Your task to perform on an android device: Open Android settings Image 0: 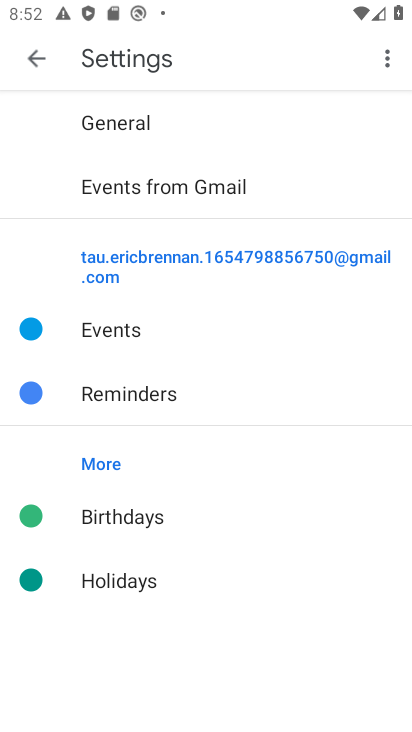
Step 0: press home button
Your task to perform on an android device: Open Android settings Image 1: 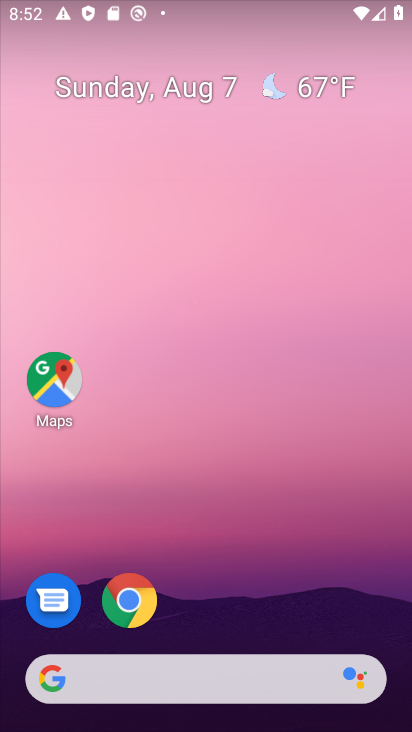
Step 1: drag from (197, 603) to (197, 116)
Your task to perform on an android device: Open Android settings Image 2: 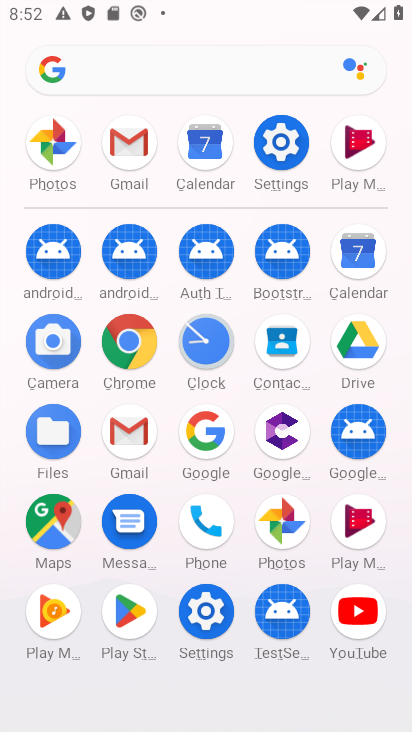
Step 2: click (202, 617)
Your task to perform on an android device: Open Android settings Image 3: 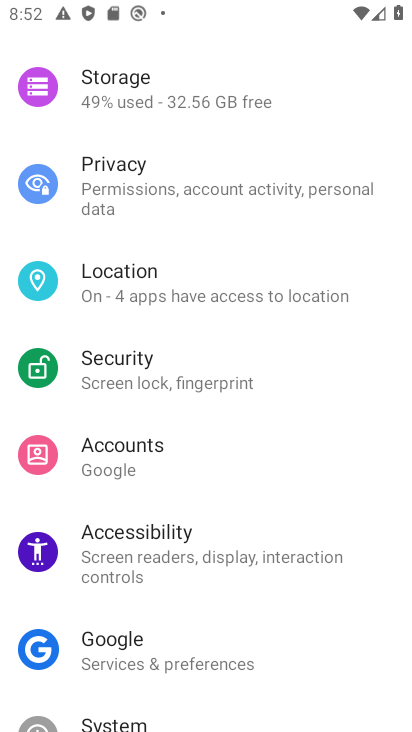
Step 3: drag from (213, 354) to (240, 62)
Your task to perform on an android device: Open Android settings Image 4: 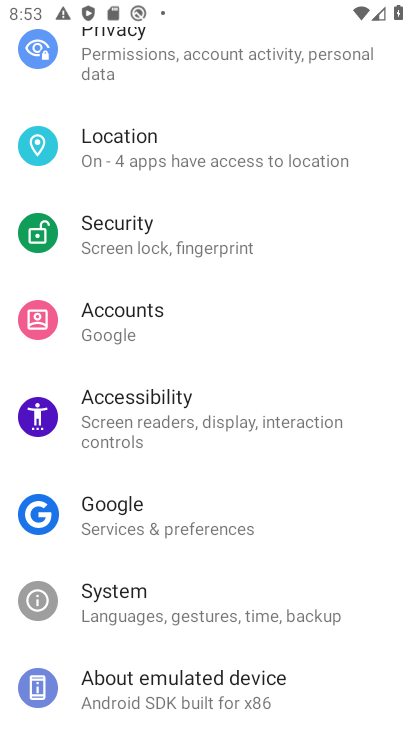
Step 4: click (167, 670)
Your task to perform on an android device: Open Android settings Image 5: 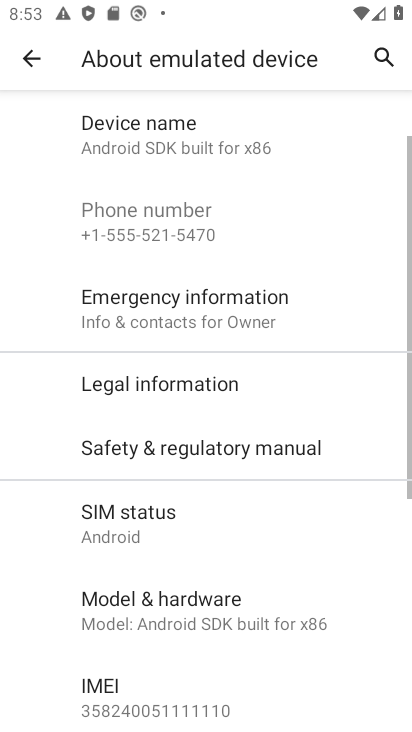
Step 5: task complete